Your task to perform on an android device: change the clock style Image 0: 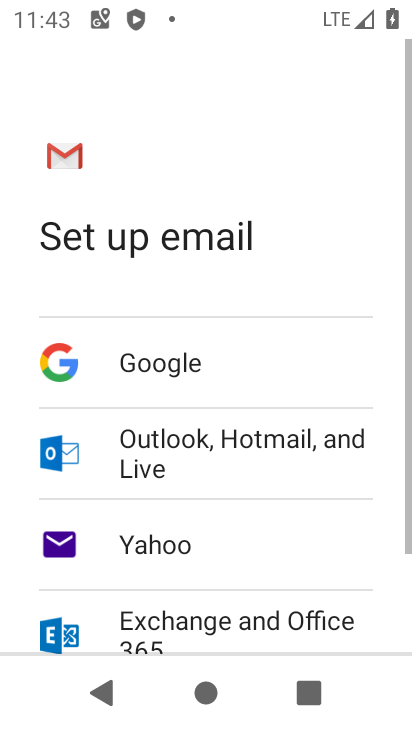
Step 0: press back button
Your task to perform on an android device: change the clock style Image 1: 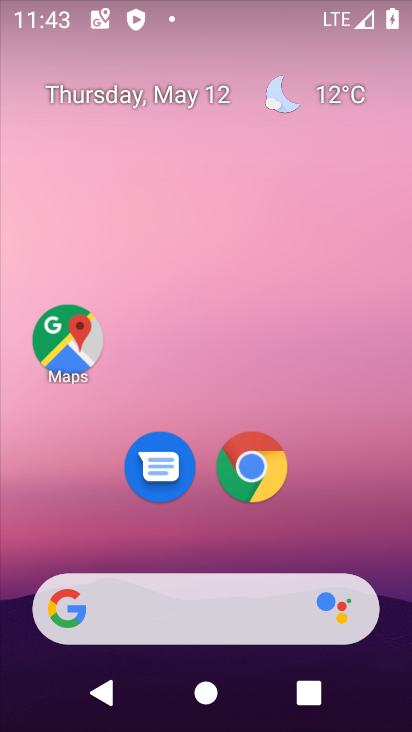
Step 1: drag from (373, 528) to (254, 20)
Your task to perform on an android device: change the clock style Image 2: 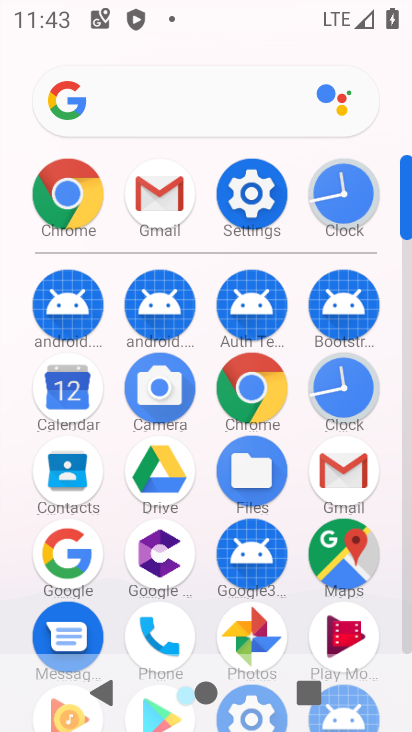
Step 2: drag from (9, 599) to (5, 280)
Your task to perform on an android device: change the clock style Image 3: 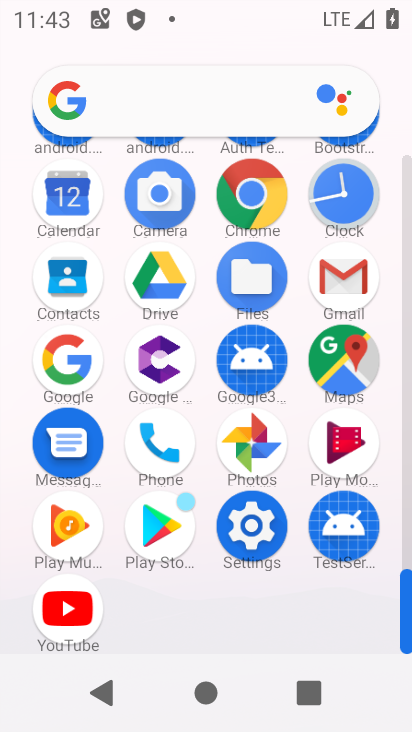
Step 3: click (350, 170)
Your task to perform on an android device: change the clock style Image 4: 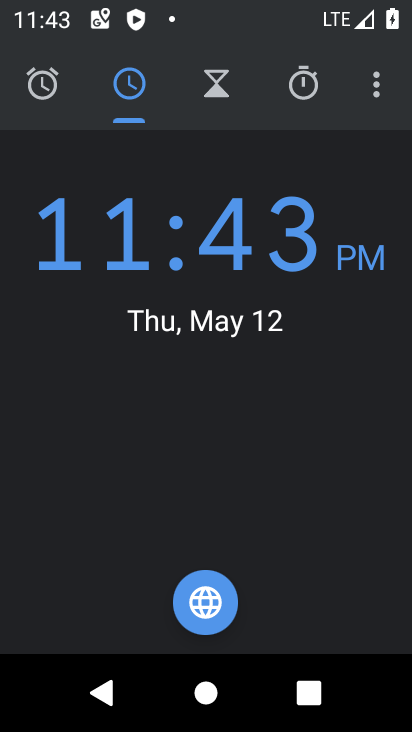
Step 4: click (376, 95)
Your task to perform on an android device: change the clock style Image 5: 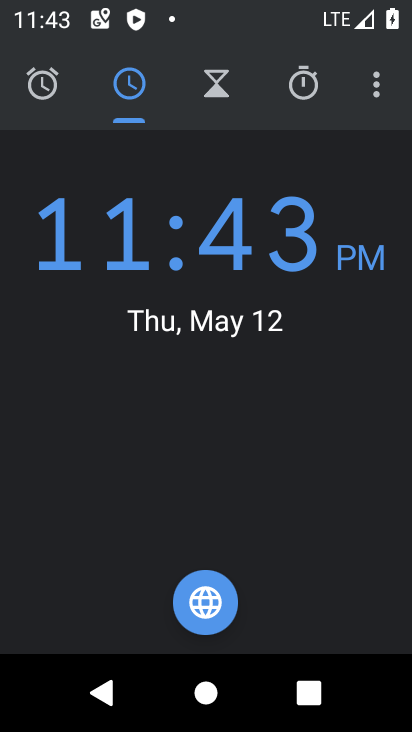
Step 5: click (316, 154)
Your task to perform on an android device: change the clock style Image 6: 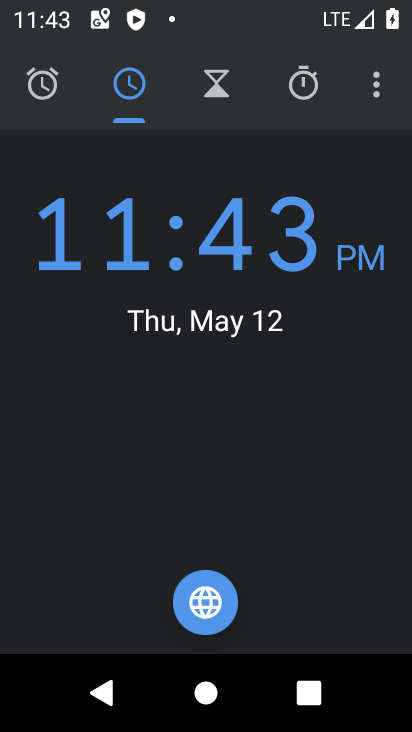
Step 6: drag from (380, 91) to (299, 160)
Your task to perform on an android device: change the clock style Image 7: 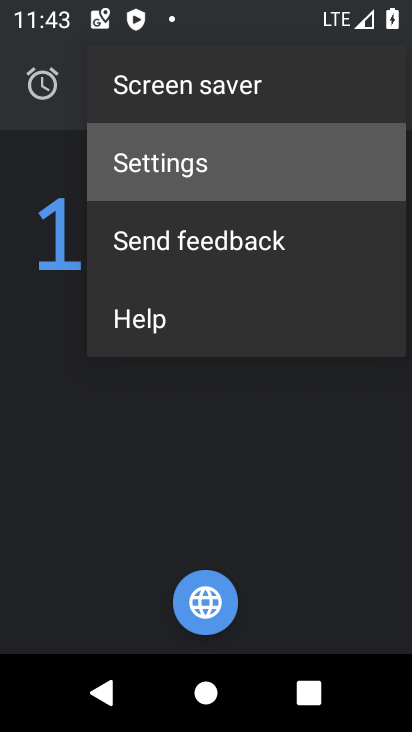
Step 7: click (249, 159)
Your task to perform on an android device: change the clock style Image 8: 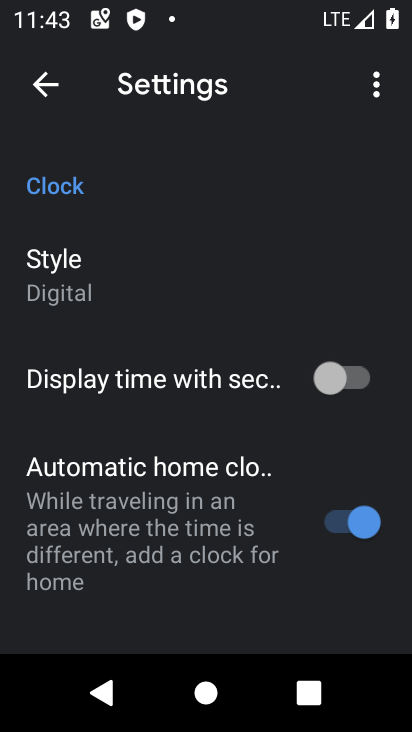
Step 8: click (99, 262)
Your task to perform on an android device: change the clock style Image 9: 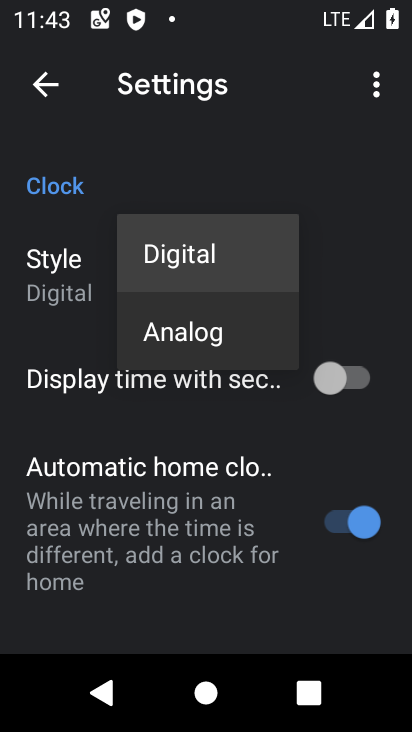
Step 9: click (173, 337)
Your task to perform on an android device: change the clock style Image 10: 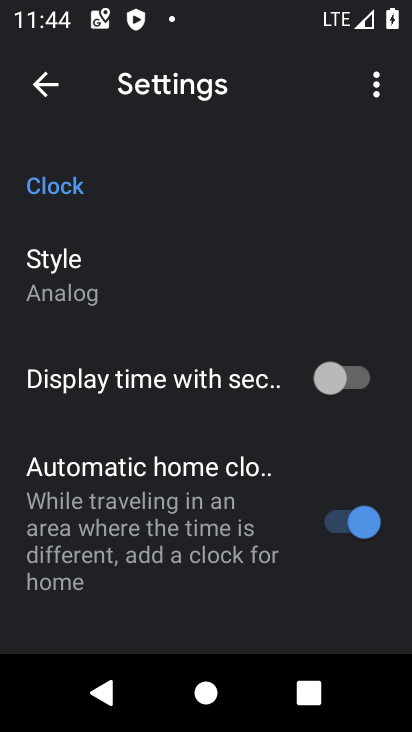
Step 10: task complete